Your task to perform on an android device: open chrome privacy settings Image 0: 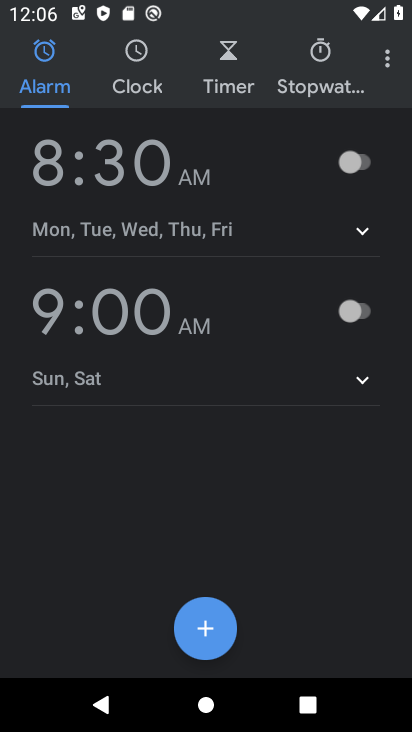
Step 0: press home button
Your task to perform on an android device: open chrome privacy settings Image 1: 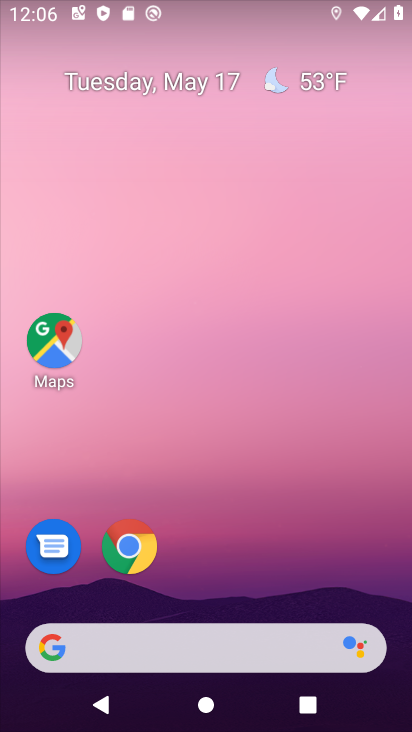
Step 1: click (123, 550)
Your task to perform on an android device: open chrome privacy settings Image 2: 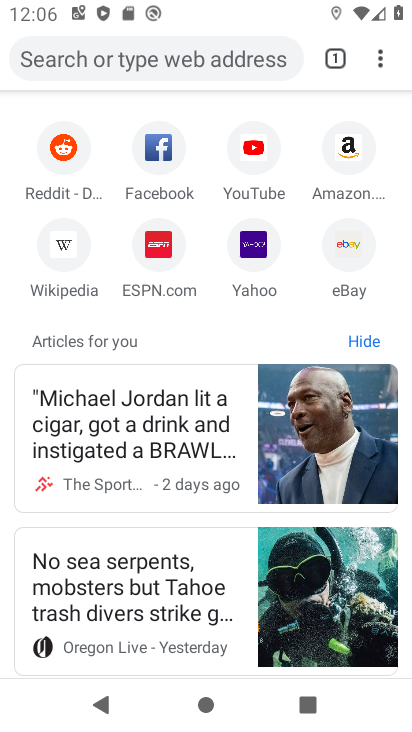
Step 2: click (376, 55)
Your task to perform on an android device: open chrome privacy settings Image 3: 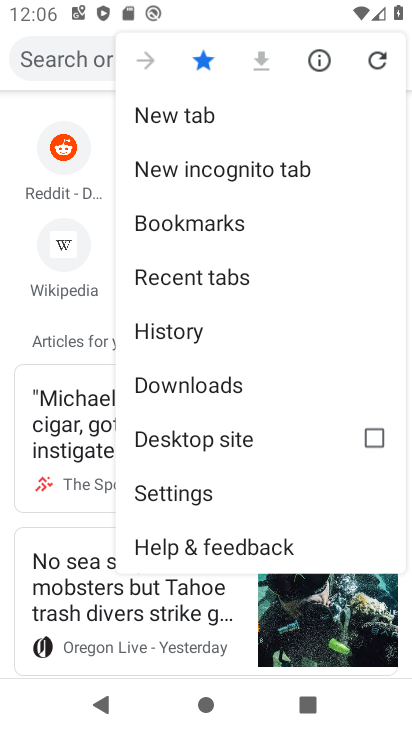
Step 3: click (200, 498)
Your task to perform on an android device: open chrome privacy settings Image 4: 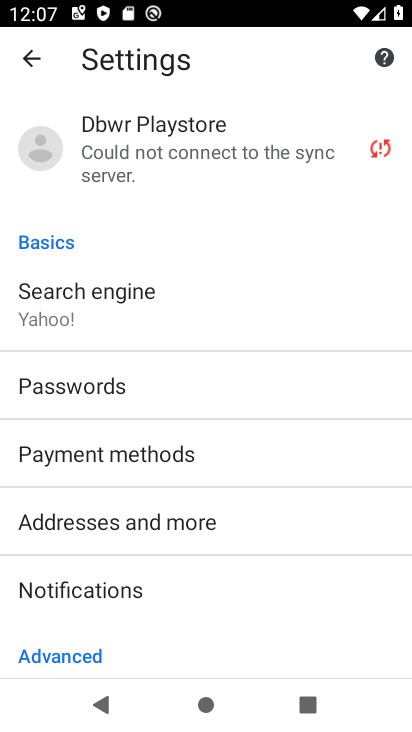
Step 4: task complete